Your task to perform on an android device: change timer sound Image 0: 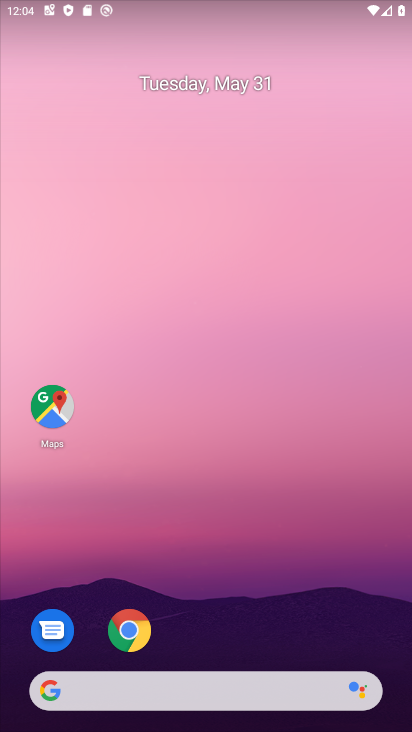
Step 0: drag from (234, 681) to (256, 5)
Your task to perform on an android device: change timer sound Image 1: 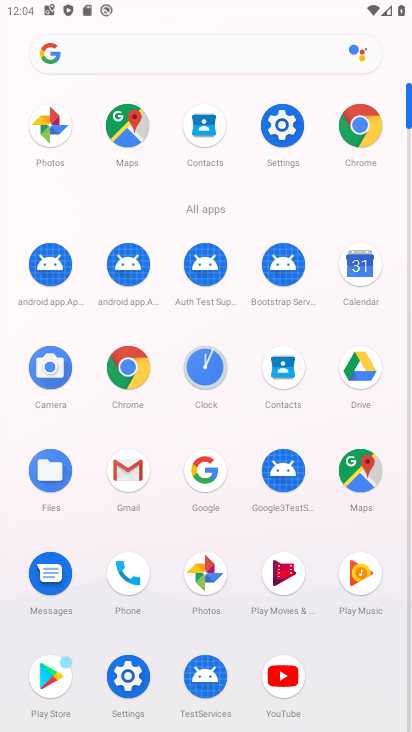
Step 1: click (206, 379)
Your task to perform on an android device: change timer sound Image 2: 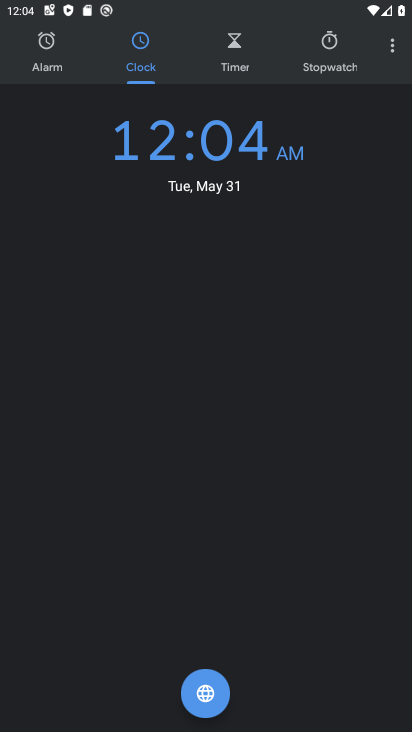
Step 2: click (390, 46)
Your task to perform on an android device: change timer sound Image 3: 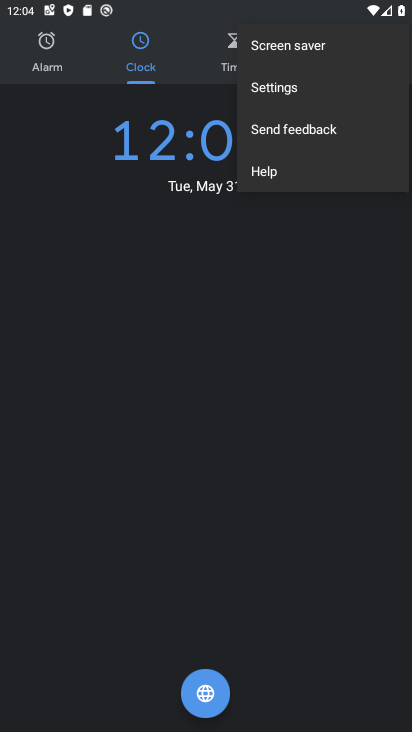
Step 3: click (278, 92)
Your task to perform on an android device: change timer sound Image 4: 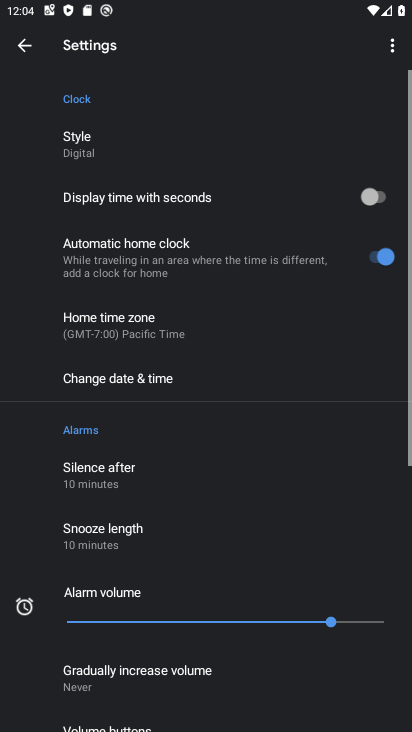
Step 4: drag from (190, 658) to (362, 266)
Your task to perform on an android device: change timer sound Image 5: 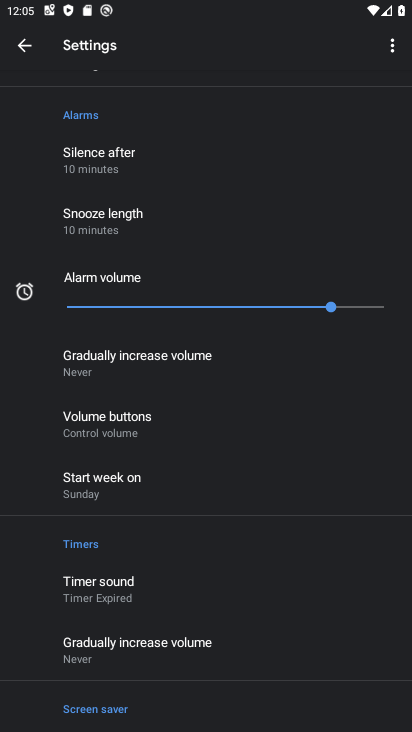
Step 5: drag from (189, 606) to (318, 387)
Your task to perform on an android device: change timer sound Image 6: 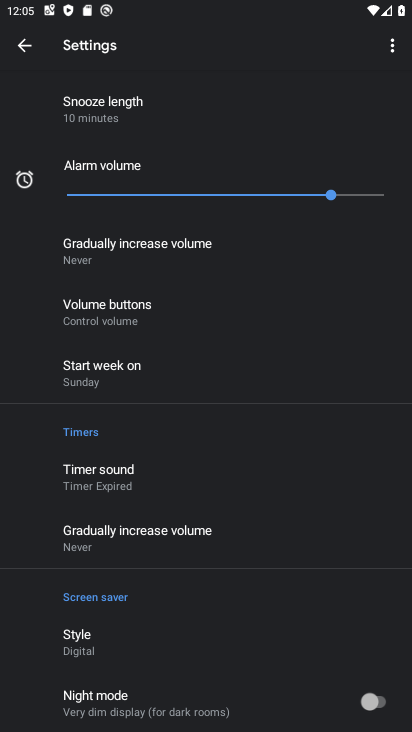
Step 6: click (113, 478)
Your task to perform on an android device: change timer sound Image 7: 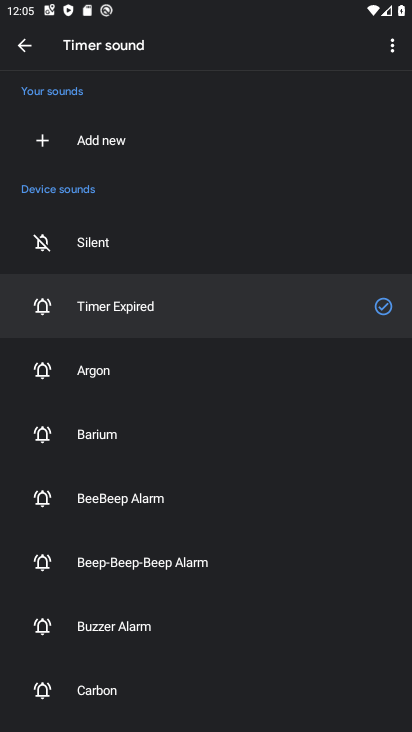
Step 7: click (93, 437)
Your task to perform on an android device: change timer sound Image 8: 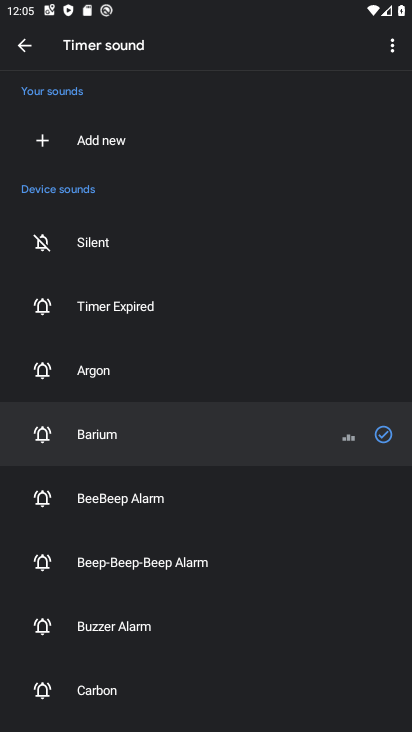
Step 8: task complete